Your task to perform on an android device: clear history in the chrome app Image 0: 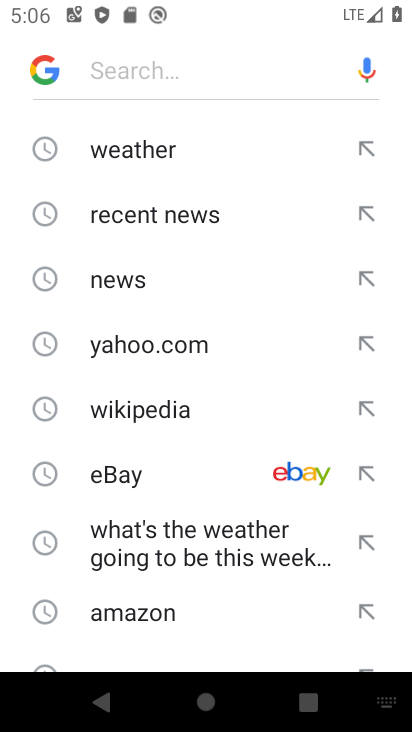
Step 0: press home button
Your task to perform on an android device: clear history in the chrome app Image 1: 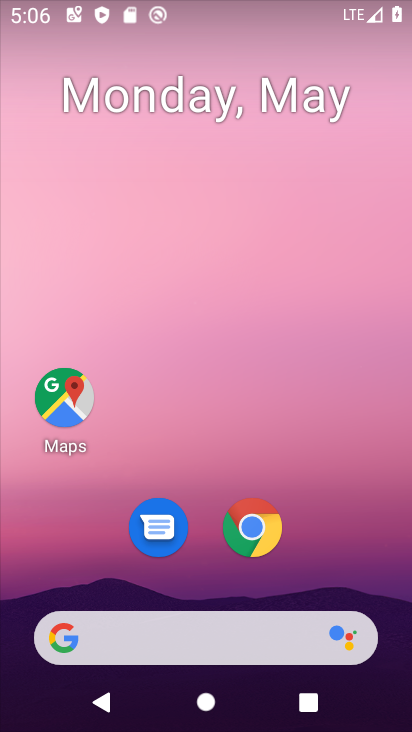
Step 1: click (247, 535)
Your task to perform on an android device: clear history in the chrome app Image 2: 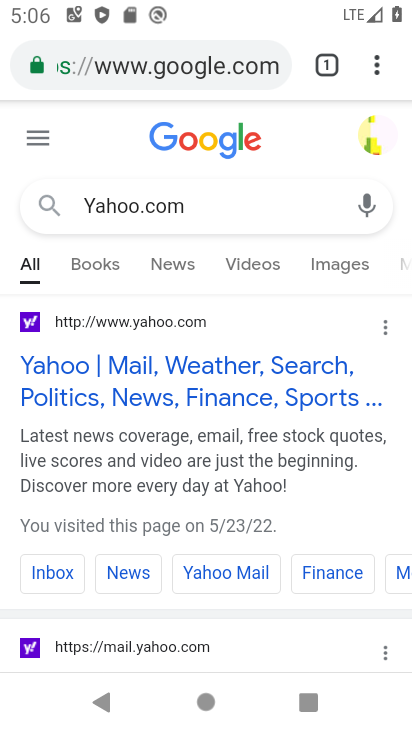
Step 2: click (375, 62)
Your task to perform on an android device: clear history in the chrome app Image 3: 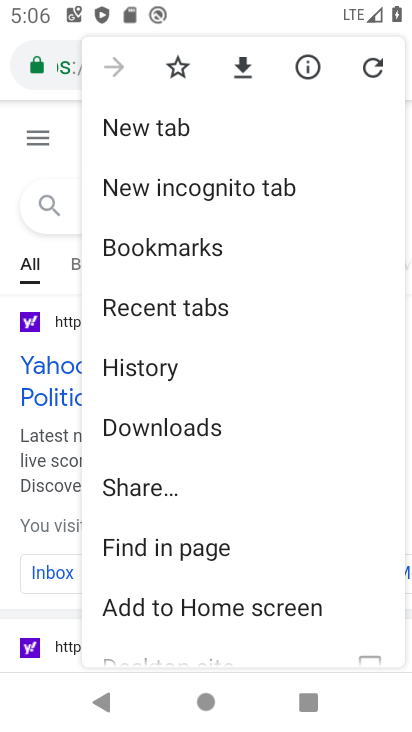
Step 3: click (127, 374)
Your task to perform on an android device: clear history in the chrome app Image 4: 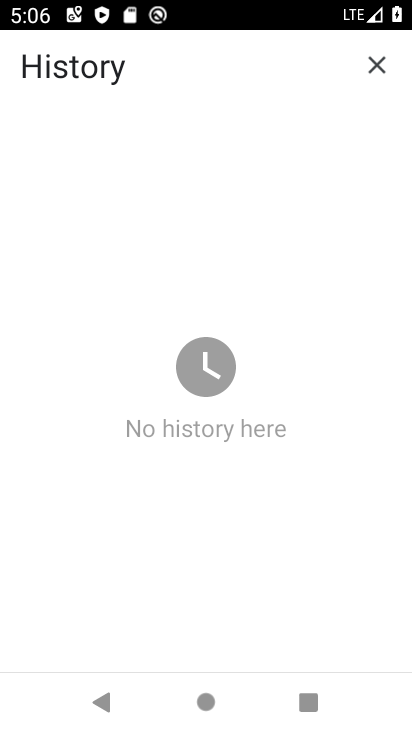
Step 4: task complete